Your task to perform on an android device: Show me popular games on the Play Store Image 0: 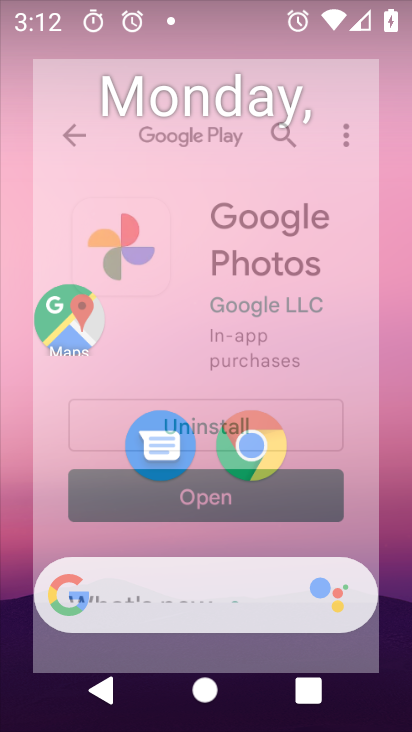
Step 0: drag from (237, 592) to (236, 133)
Your task to perform on an android device: Show me popular games on the Play Store Image 1: 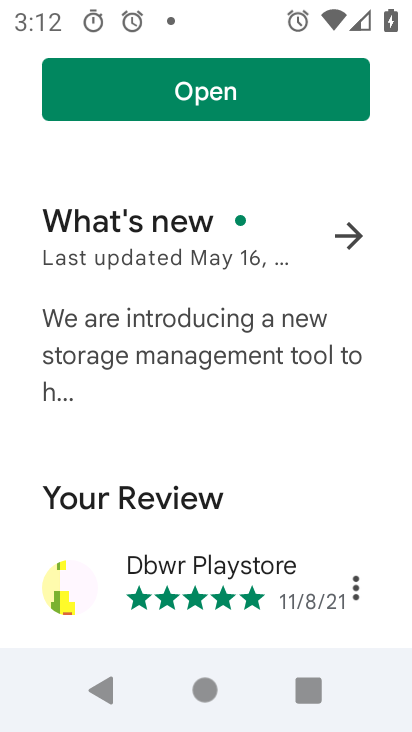
Step 1: press home button
Your task to perform on an android device: Show me popular games on the Play Store Image 2: 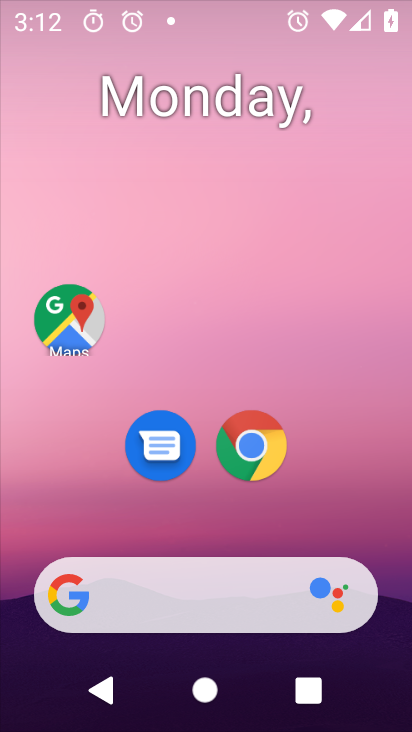
Step 2: drag from (179, 568) to (161, 134)
Your task to perform on an android device: Show me popular games on the Play Store Image 3: 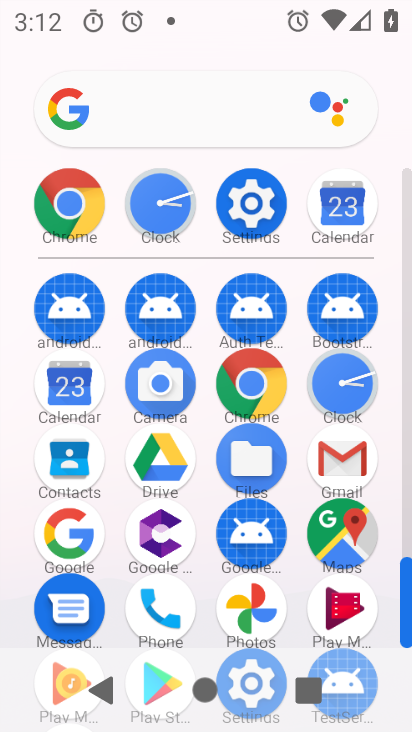
Step 3: drag from (177, 630) to (156, 352)
Your task to perform on an android device: Show me popular games on the Play Store Image 4: 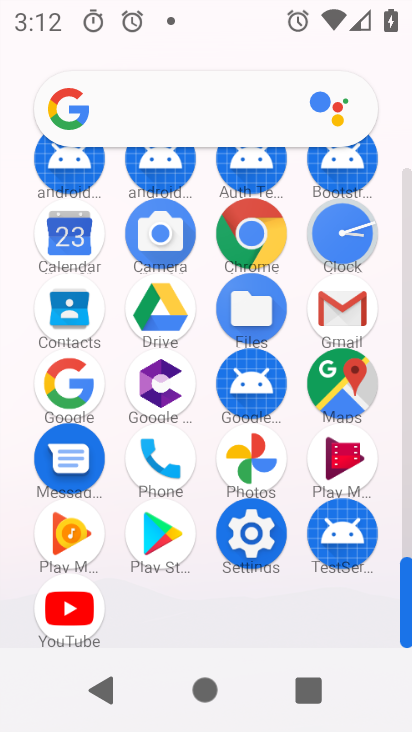
Step 4: click (166, 548)
Your task to perform on an android device: Show me popular games on the Play Store Image 5: 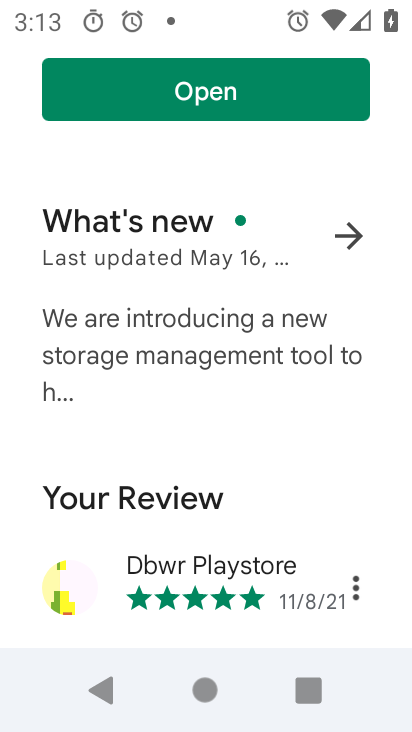
Step 5: drag from (184, 281) to (207, 726)
Your task to perform on an android device: Show me popular games on the Play Store Image 6: 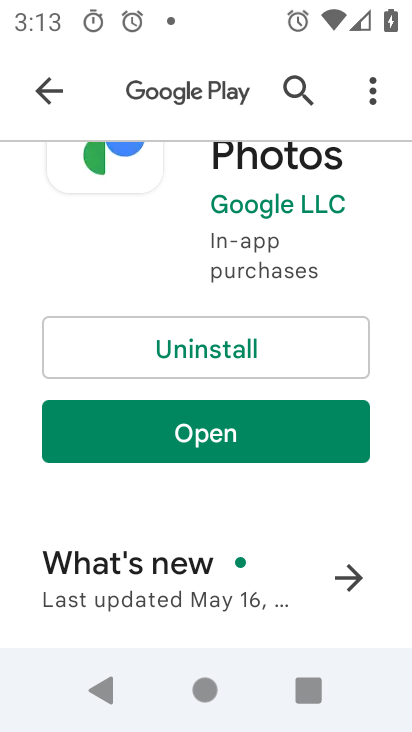
Step 6: click (56, 106)
Your task to perform on an android device: Show me popular games on the Play Store Image 7: 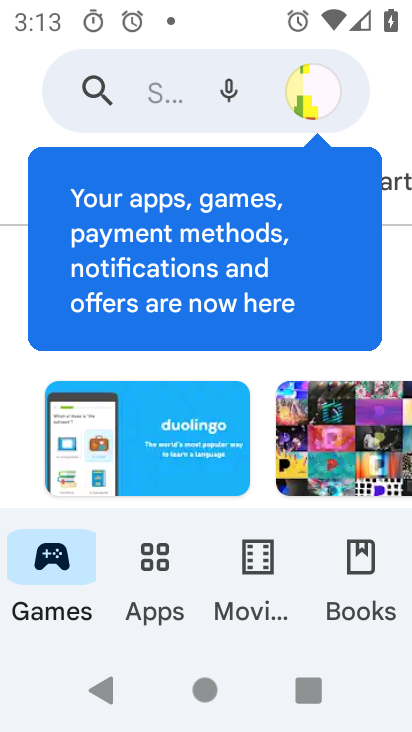
Step 7: drag from (276, 482) to (165, 32)
Your task to perform on an android device: Show me popular games on the Play Store Image 8: 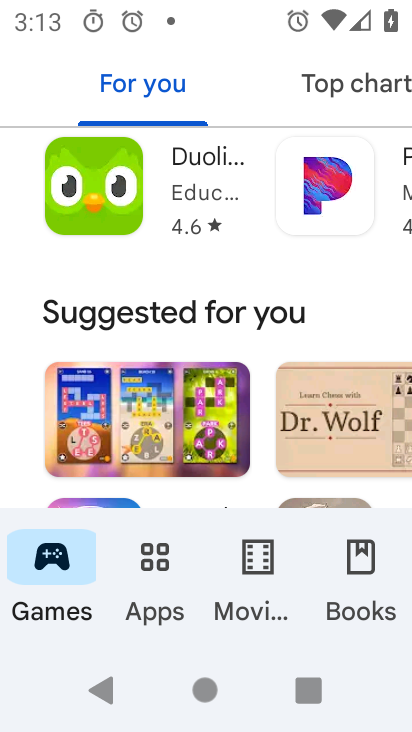
Step 8: drag from (257, 387) to (179, 116)
Your task to perform on an android device: Show me popular games on the Play Store Image 9: 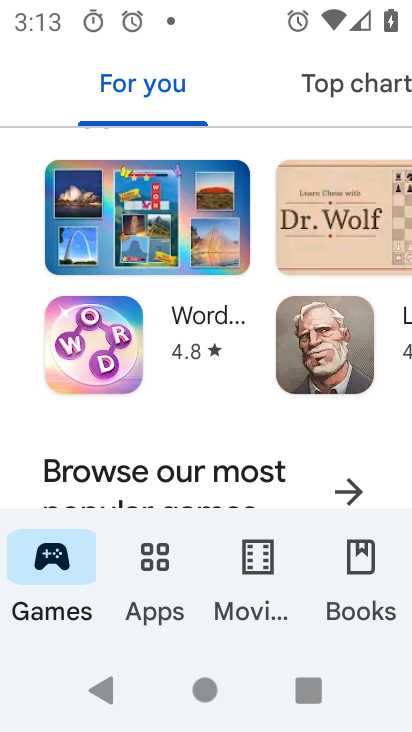
Step 9: drag from (233, 401) to (162, 172)
Your task to perform on an android device: Show me popular games on the Play Store Image 10: 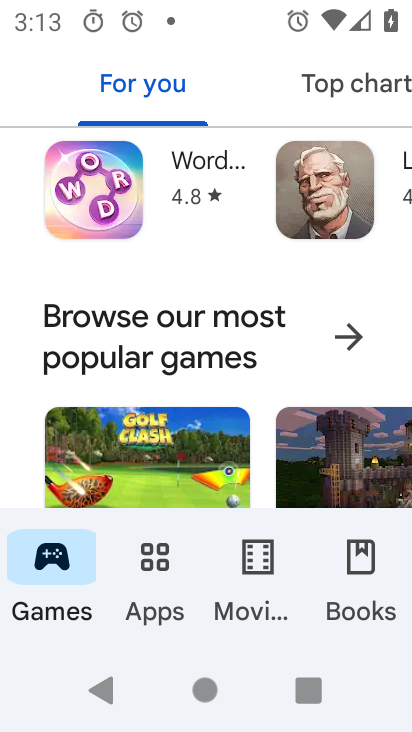
Step 10: click (222, 340)
Your task to perform on an android device: Show me popular games on the Play Store Image 11: 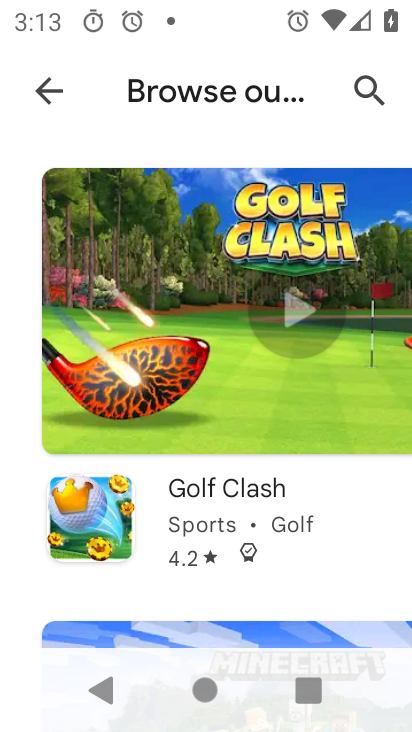
Step 11: task complete